Your task to perform on an android device: Is it going to rain this weekend? Image 0: 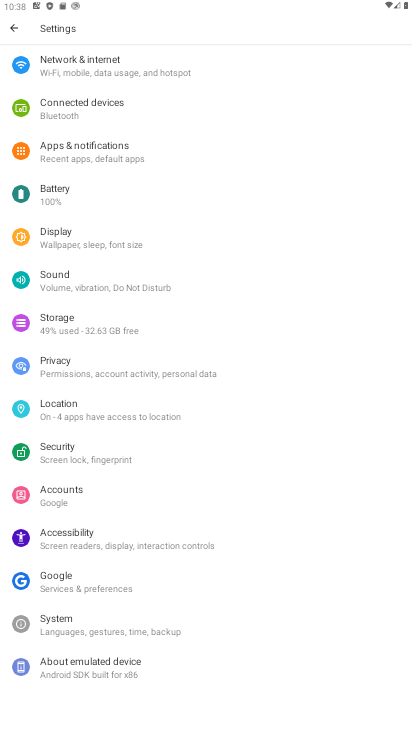
Step 0: press home button
Your task to perform on an android device: Is it going to rain this weekend? Image 1: 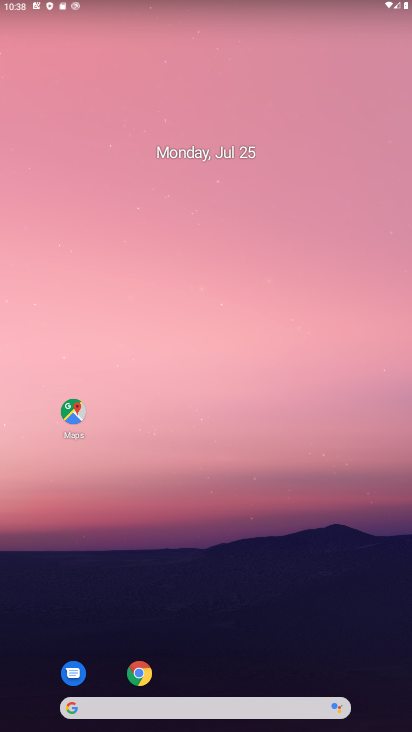
Step 1: click (200, 704)
Your task to perform on an android device: Is it going to rain this weekend? Image 2: 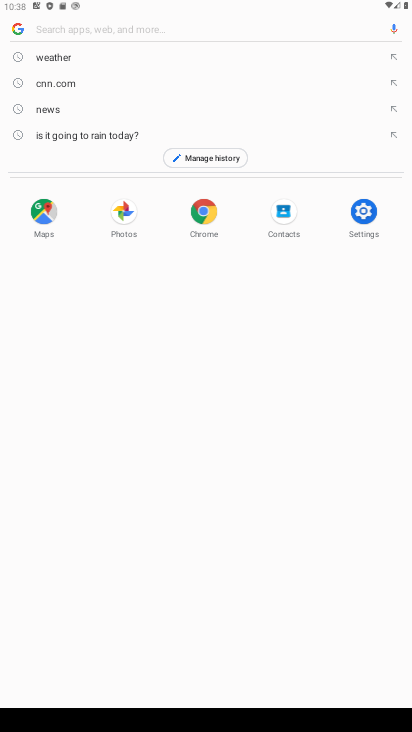
Step 2: click (81, 50)
Your task to perform on an android device: Is it going to rain this weekend? Image 3: 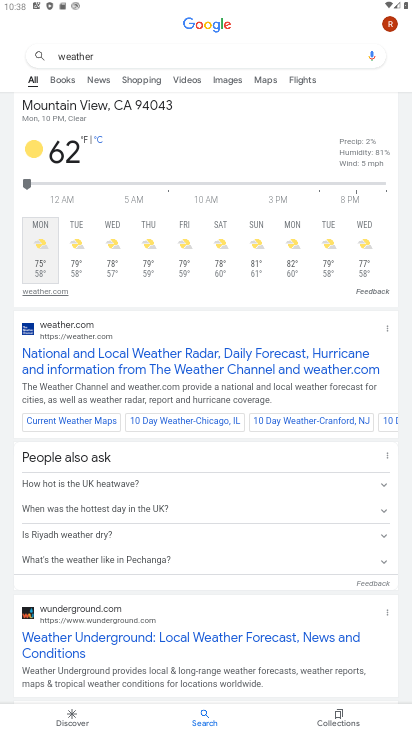
Step 3: click (218, 240)
Your task to perform on an android device: Is it going to rain this weekend? Image 4: 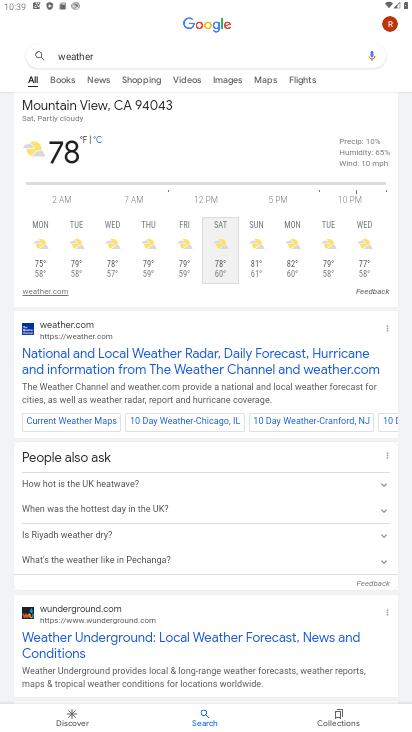
Step 4: task complete